Your task to perform on an android device: set the timer Image 0: 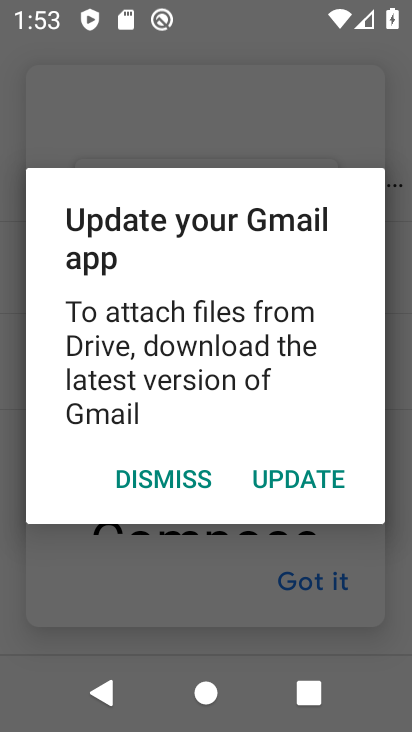
Step 0: click (294, 468)
Your task to perform on an android device: set the timer Image 1: 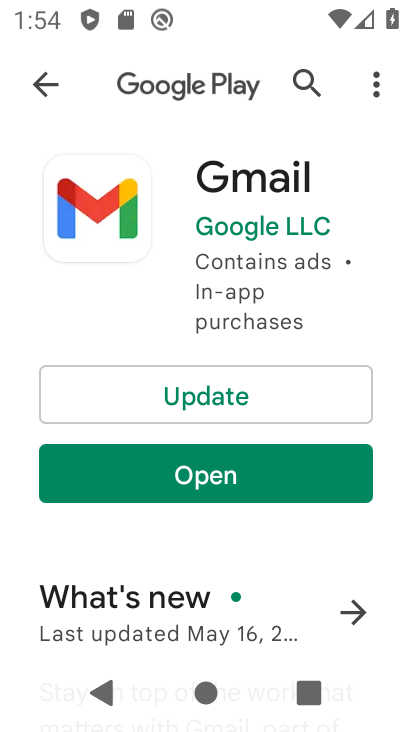
Step 1: press home button
Your task to perform on an android device: set the timer Image 2: 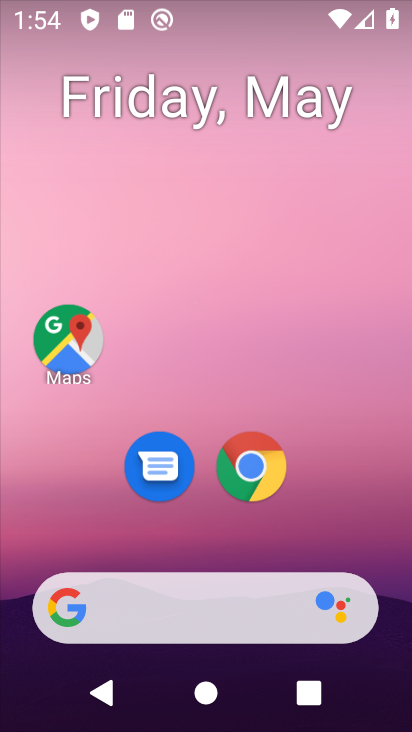
Step 2: drag from (360, 424) to (388, 112)
Your task to perform on an android device: set the timer Image 3: 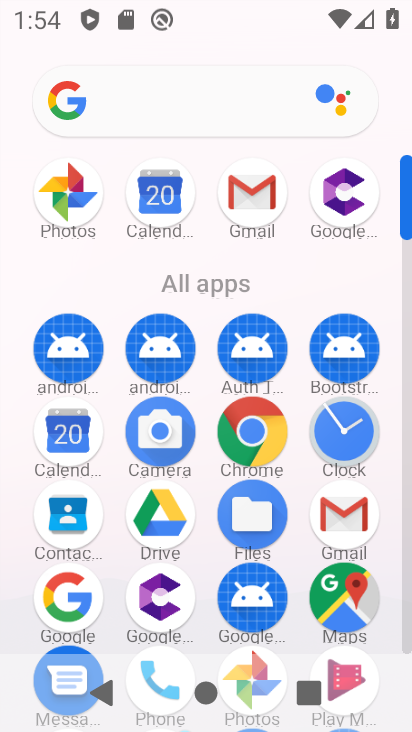
Step 3: click (319, 422)
Your task to perform on an android device: set the timer Image 4: 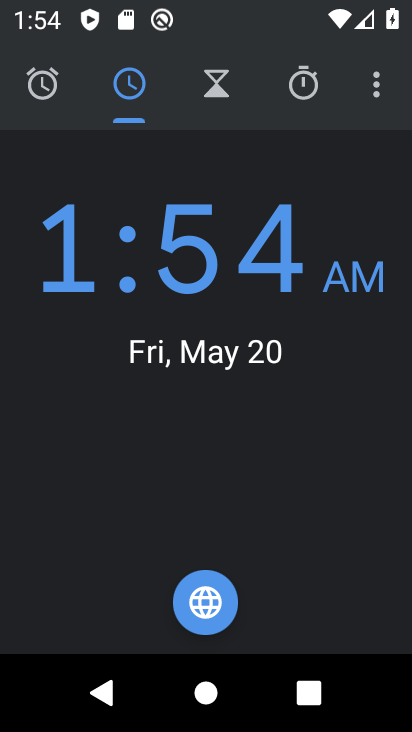
Step 4: click (202, 98)
Your task to perform on an android device: set the timer Image 5: 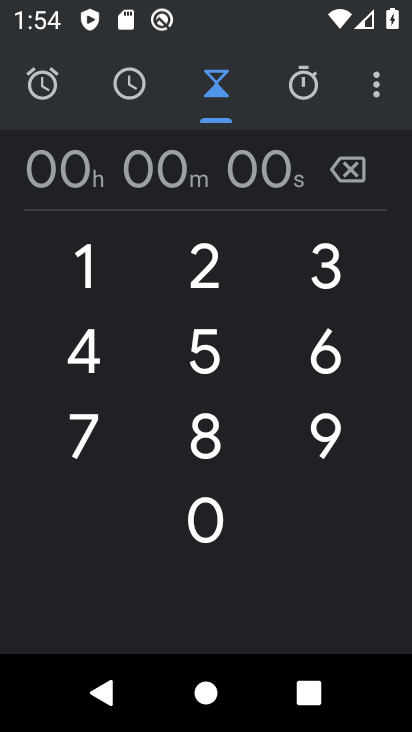
Step 5: task complete